Your task to perform on an android device: change alarm snooze length Image 0: 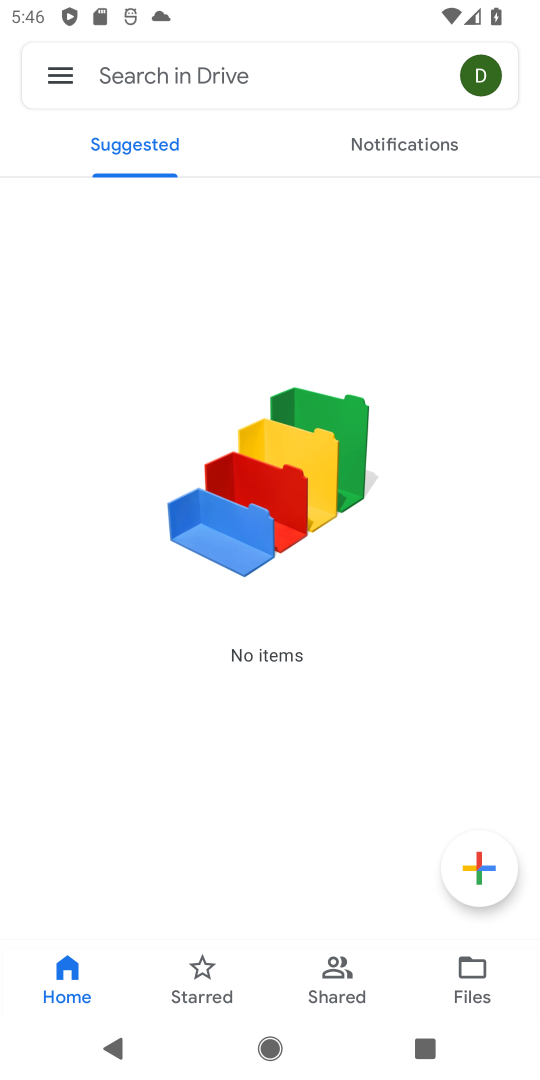
Step 0: press back button
Your task to perform on an android device: change alarm snooze length Image 1: 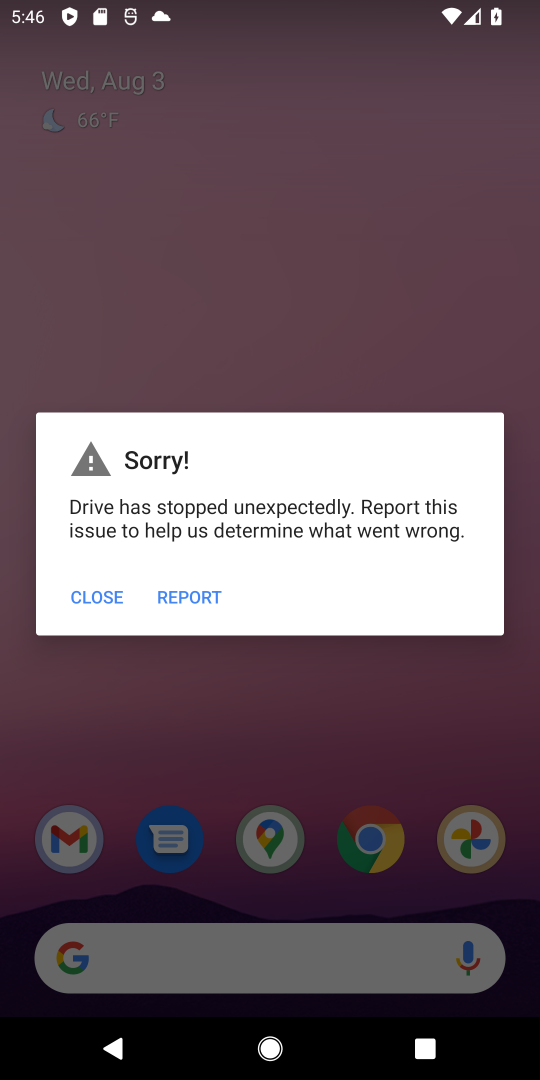
Step 1: click (111, 587)
Your task to perform on an android device: change alarm snooze length Image 2: 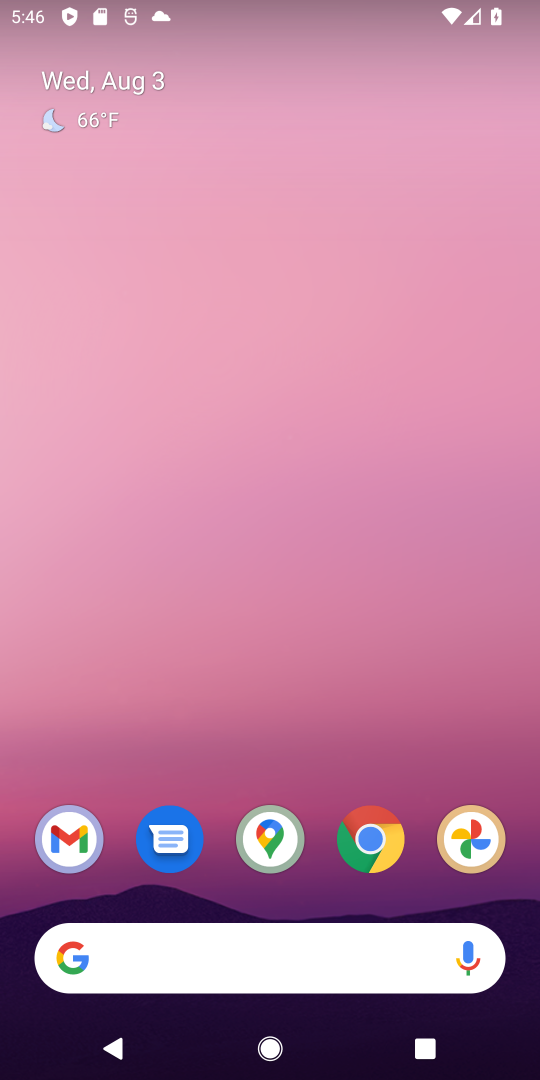
Step 2: drag from (283, 719) to (347, 10)
Your task to perform on an android device: change alarm snooze length Image 3: 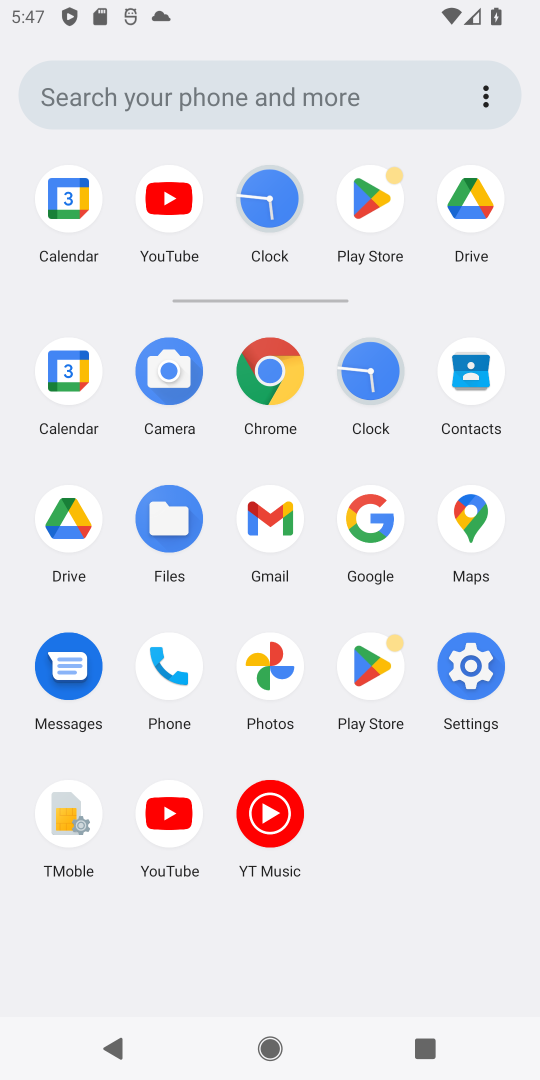
Step 3: click (357, 373)
Your task to perform on an android device: change alarm snooze length Image 4: 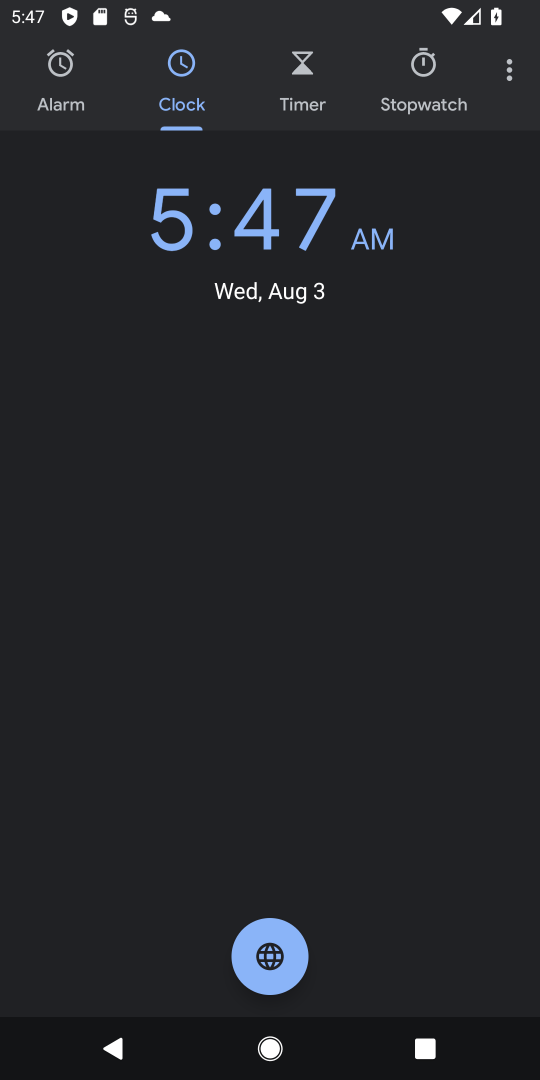
Step 4: click (516, 80)
Your task to perform on an android device: change alarm snooze length Image 5: 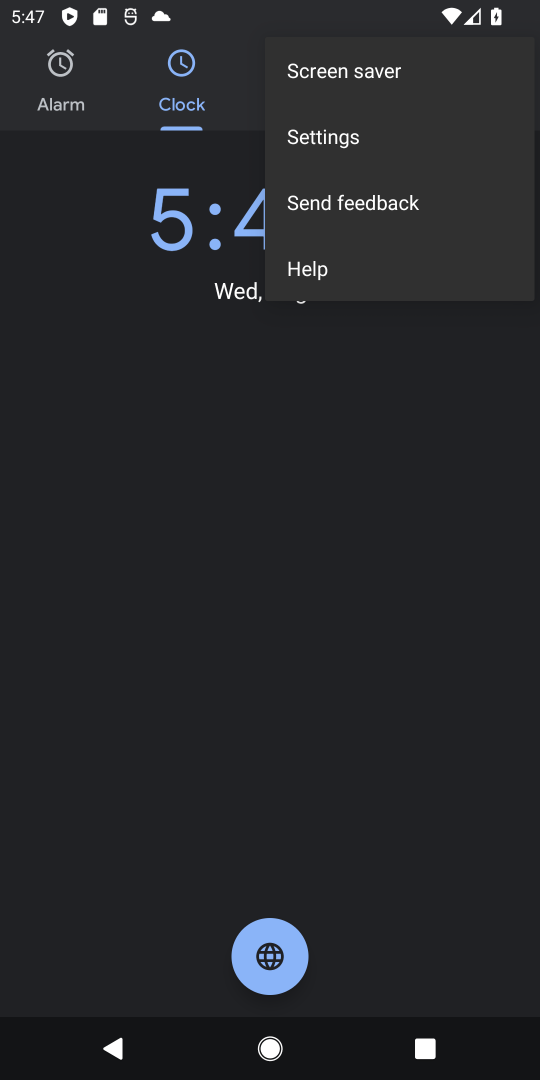
Step 5: click (383, 155)
Your task to perform on an android device: change alarm snooze length Image 6: 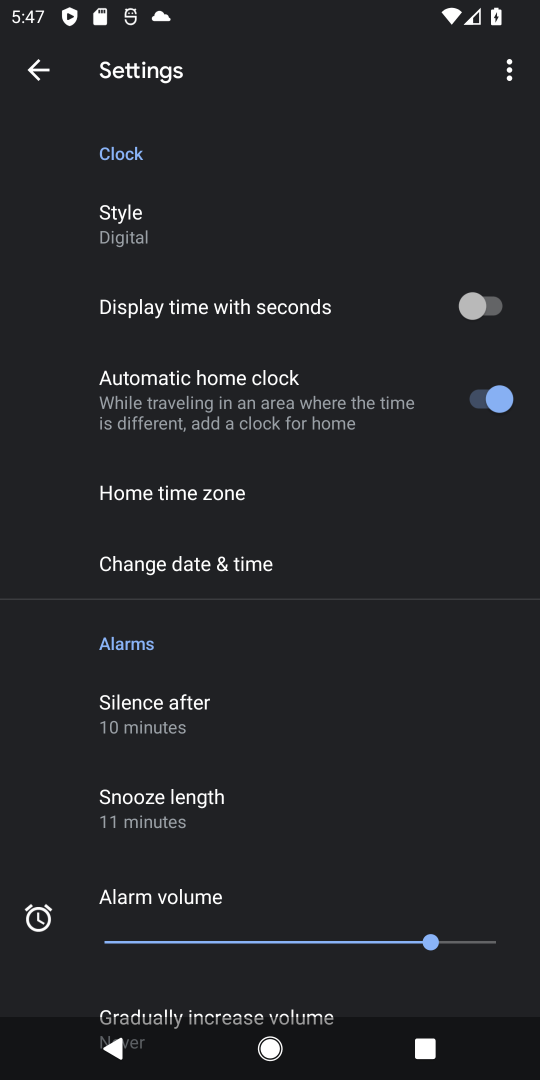
Step 6: click (200, 812)
Your task to perform on an android device: change alarm snooze length Image 7: 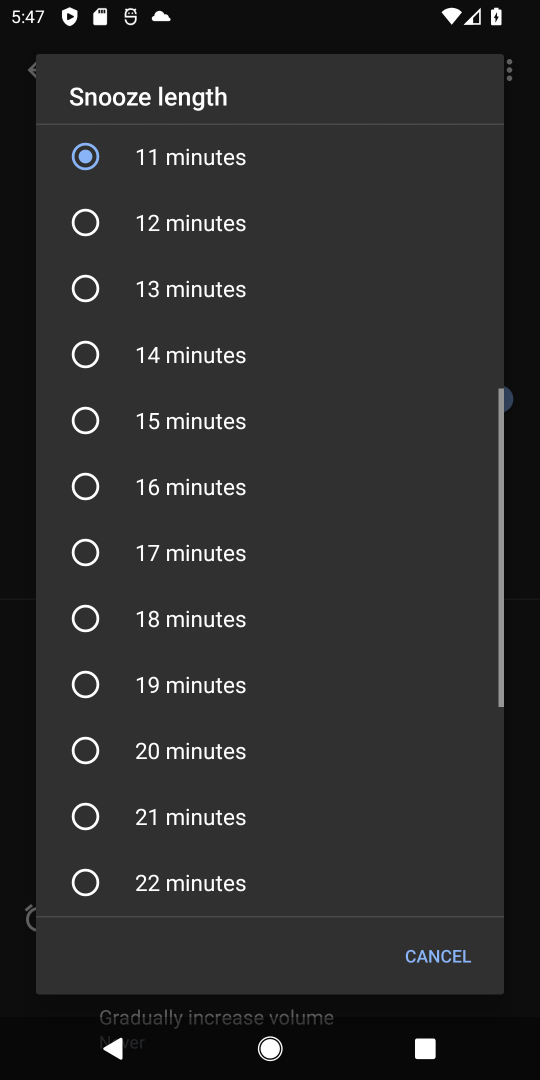
Step 7: click (95, 225)
Your task to perform on an android device: change alarm snooze length Image 8: 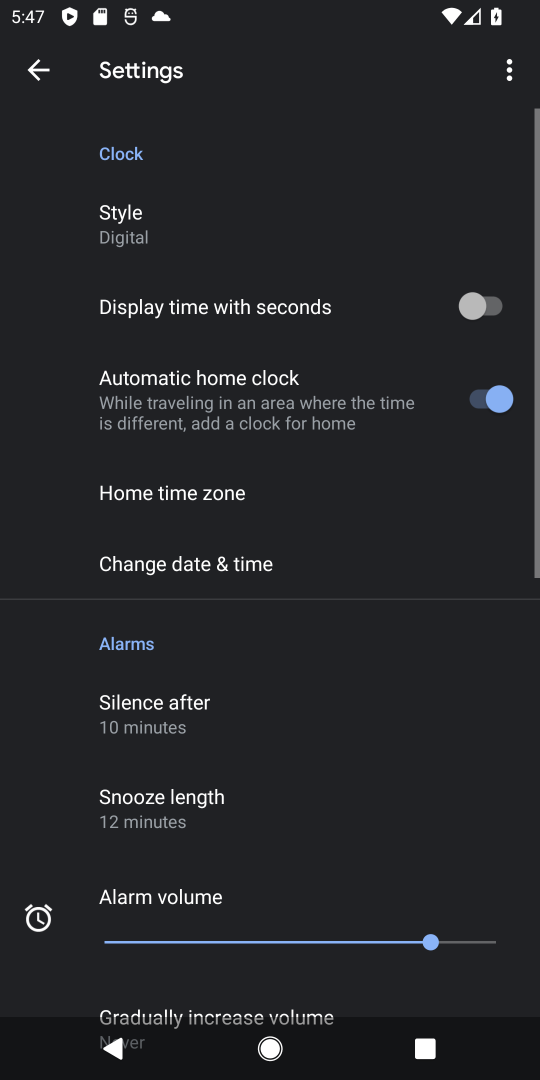
Step 8: task complete